Your task to perform on an android device: toggle show notifications on the lock screen Image 0: 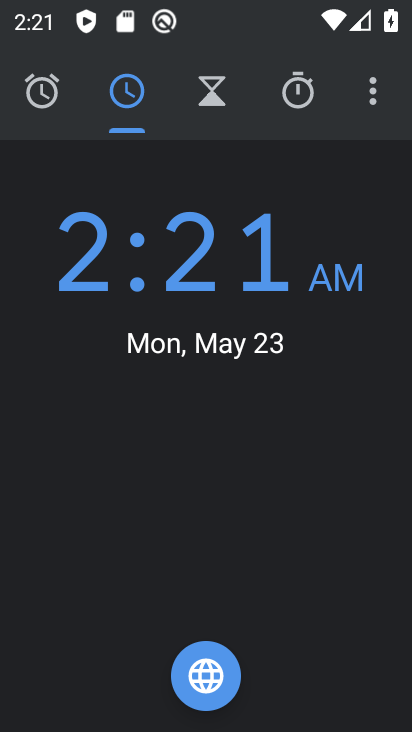
Step 0: press home button
Your task to perform on an android device: toggle show notifications on the lock screen Image 1: 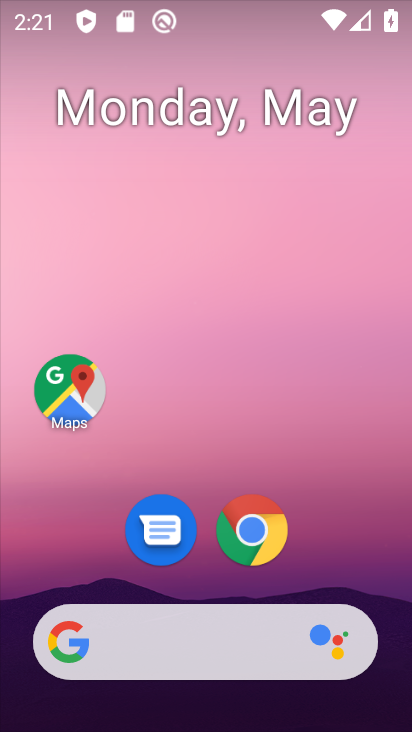
Step 1: drag from (256, 691) to (199, 73)
Your task to perform on an android device: toggle show notifications on the lock screen Image 2: 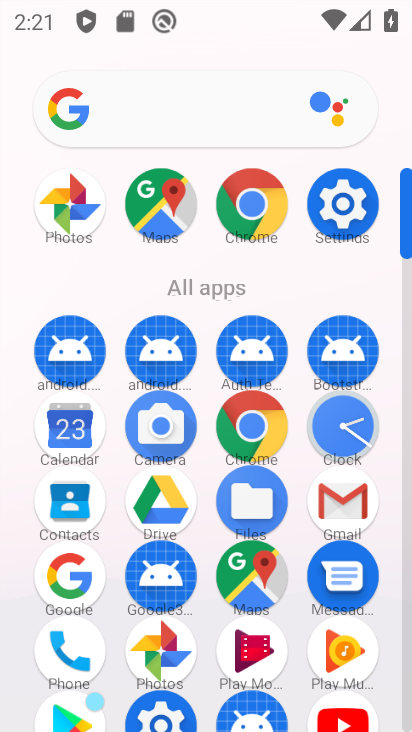
Step 2: click (354, 206)
Your task to perform on an android device: toggle show notifications on the lock screen Image 3: 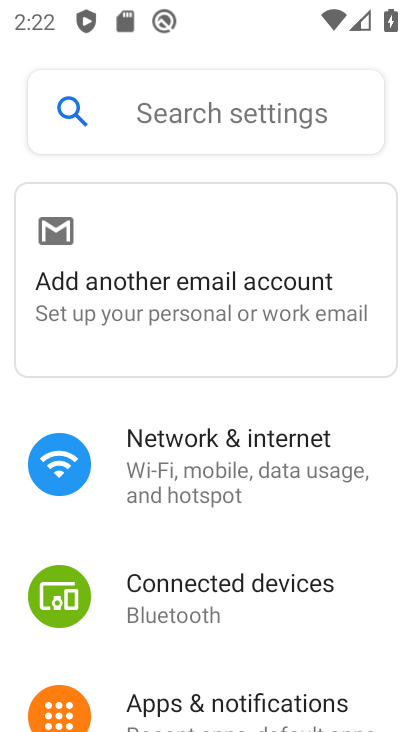
Step 3: click (248, 101)
Your task to perform on an android device: toggle show notifications on the lock screen Image 4: 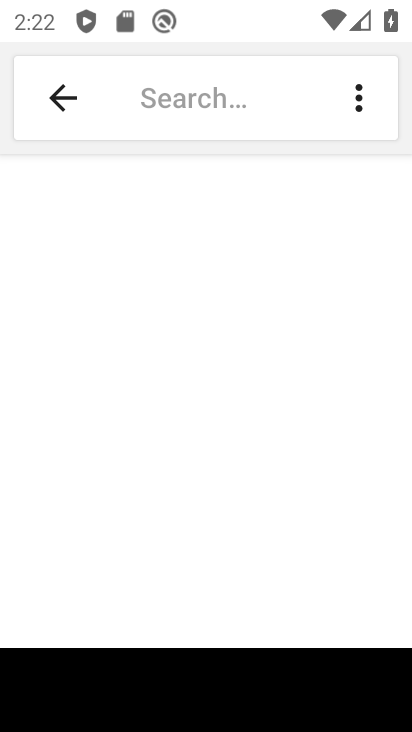
Step 4: drag from (360, 687) to (392, 425)
Your task to perform on an android device: toggle show notifications on the lock screen Image 5: 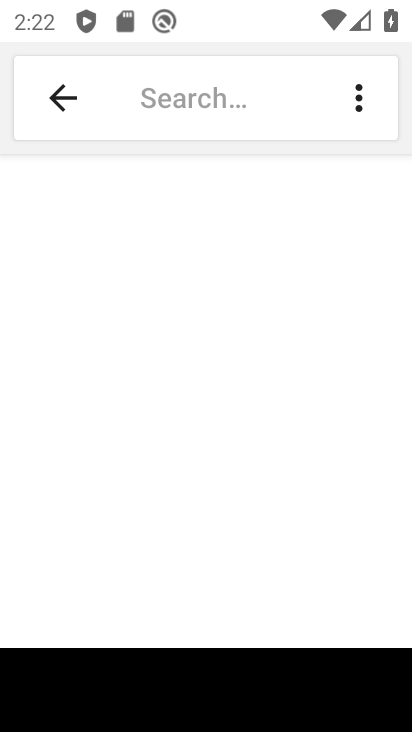
Step 5: drag from (385, 694) to (354, 458)
Your task to perform on an android device: toggle show notifications on the lock screen Image 6: 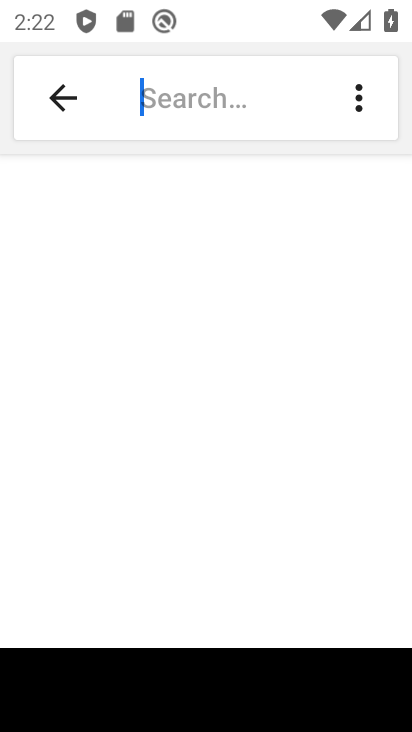
Step 6: click (386, 701)
Your task to perform on an android device: toggle show notifications on the lock screen Image 7: 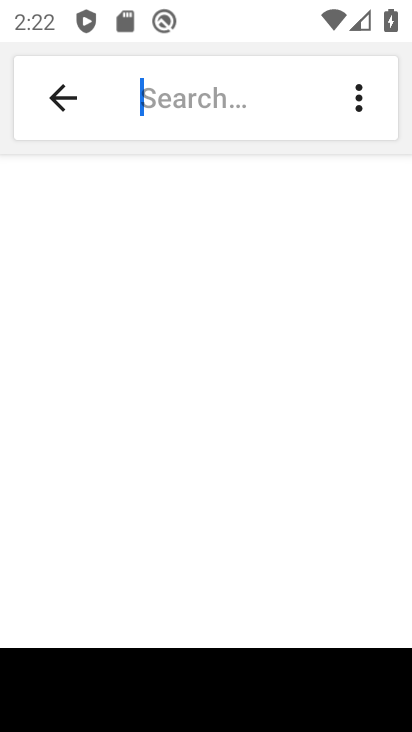
Step 7: click (179, 99)
Your task to perform on an android device: toggle show notifications on the lock screen Image 8: 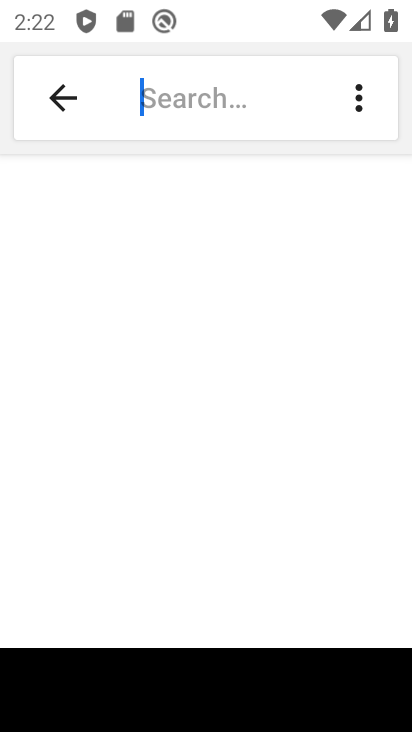
Step 8: drag from (375, 709) to (358, 410)
Your task to perform on an android device: toggle show notifications on the lock screen Image 9: 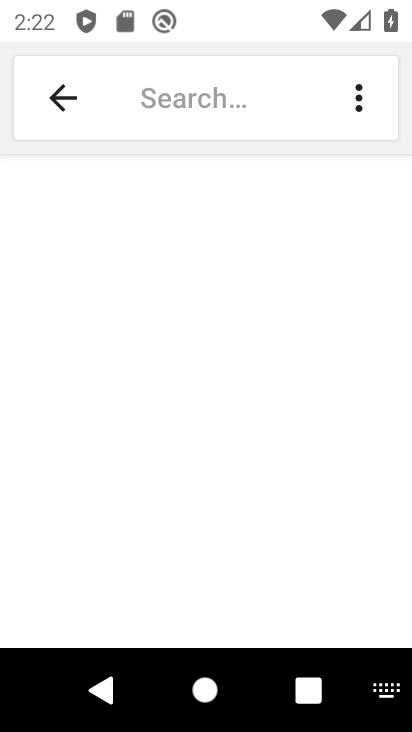
Step 9: click (394, 698)
Your task to perform on an android device: toggle show notifications on the lock screen Image 10: 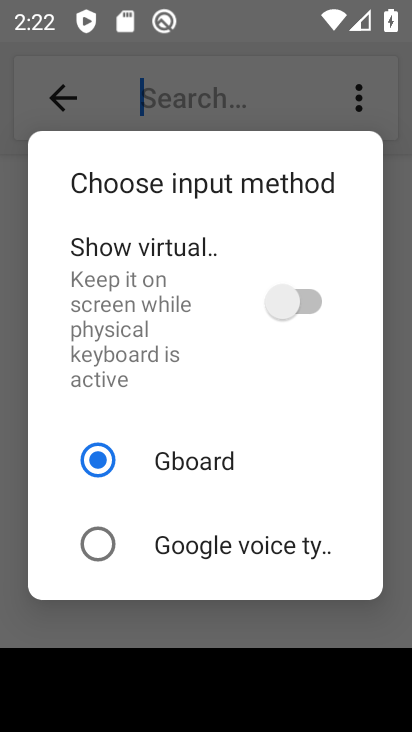
Step 10: click (302, 291)
Your task to perform on an android device: toggle show notifications on the lock screen Image 11: 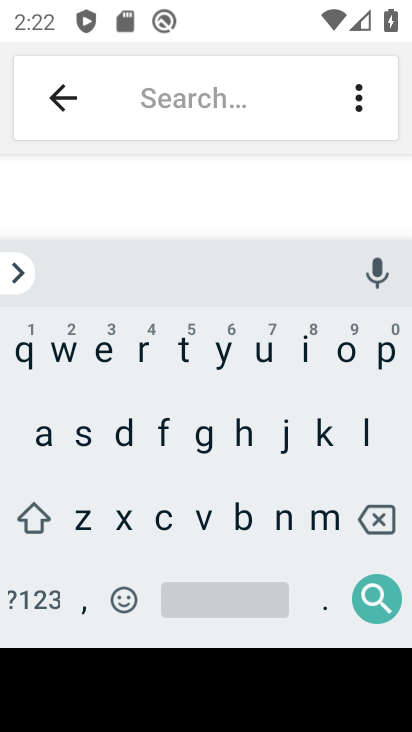
Step 11: click (168, 102)
Your task to perform on an android device: toggle show notifications on the lock screen Image 12: 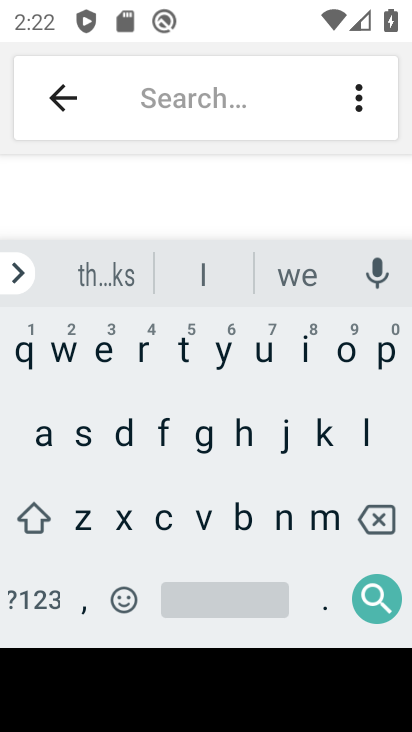
Step 12: click (285, 514)
Your task to perform on an android device: toggle show notifications on the lock screen Image 13: 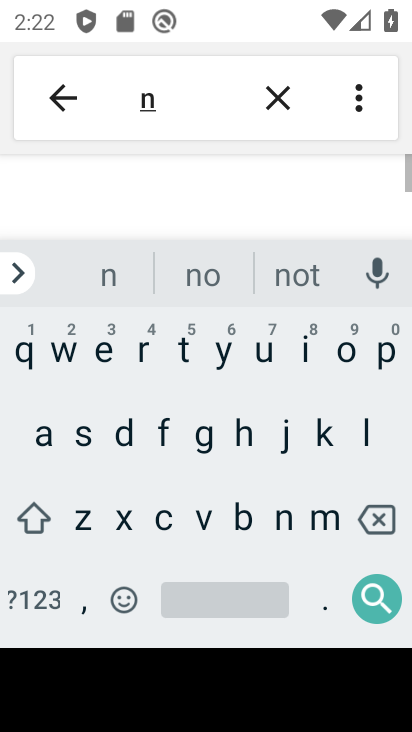
Step 13: click (348, 346)
Your task to perform on an android device: toggle show notifications on the lock screen Image 14: 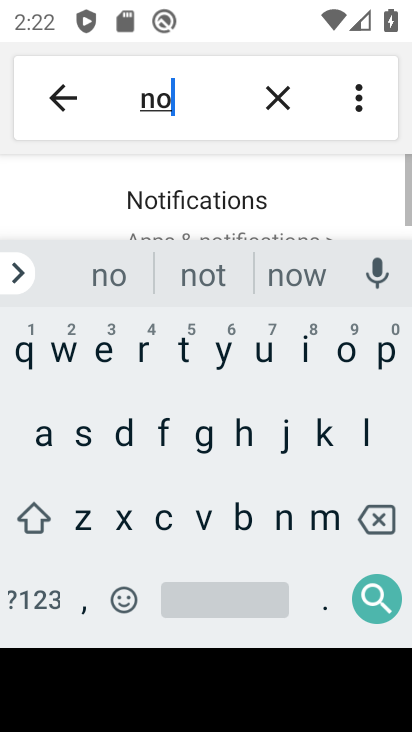
Step 14: click (209, 186)
Your task to perform on an android device: toggle show notifications on the lock screen Image 15: 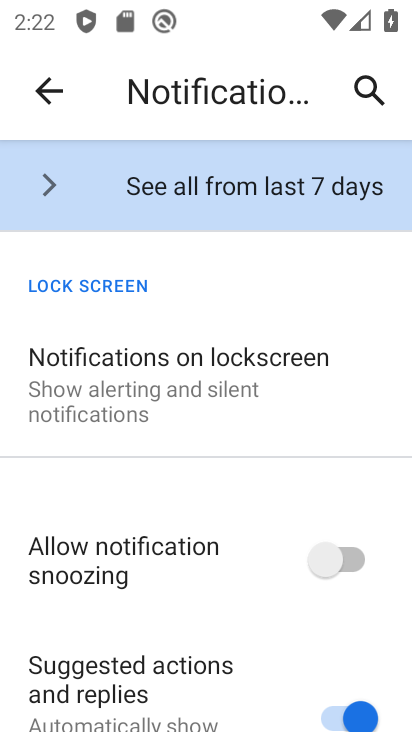
Step 15: click (177, 371)
Your task to perform on an android device: toggle show notifications on the lock screen Image 16: 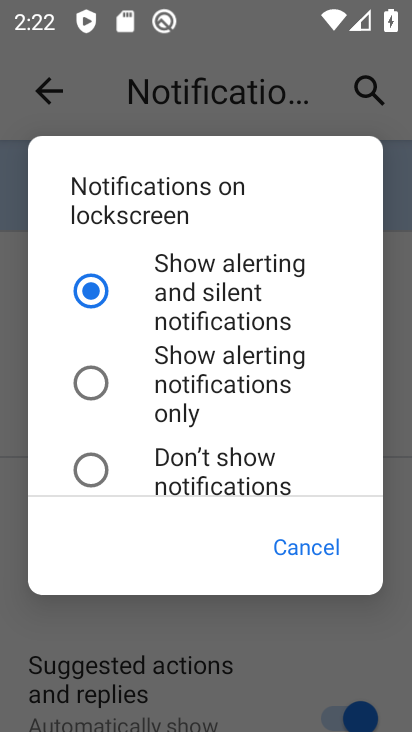
Step 16: task complete